Your task to perform on an android device: Open notification settings Image 0: 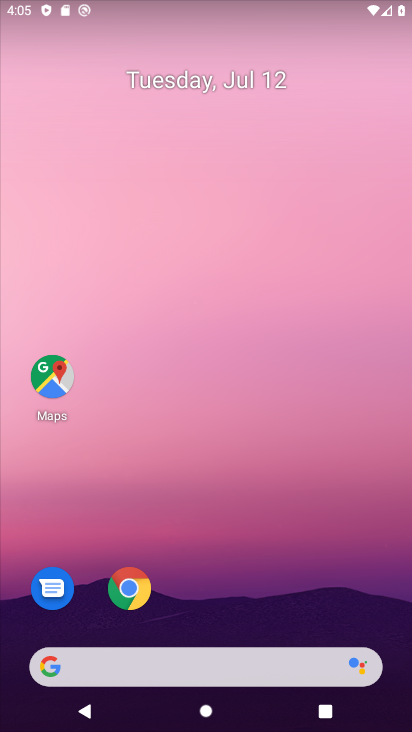
Step 0: click (212, 583)
Your task to perform on an android device: Open notification settings Image 1: 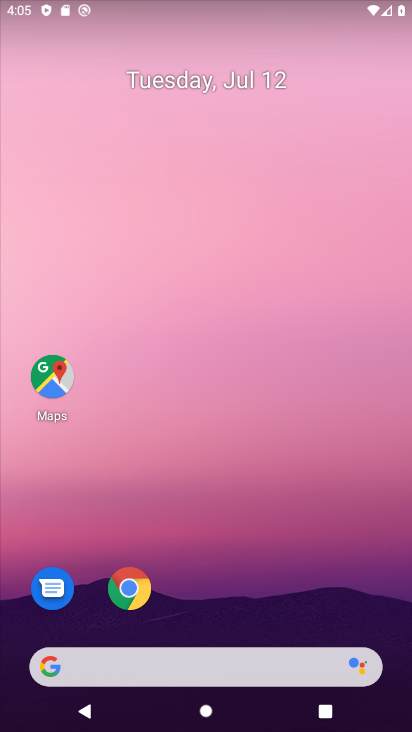
Step 1: drag from (210, 599) to (173, 246)
Your task to perform on an android device: Open notification settings Image 2: 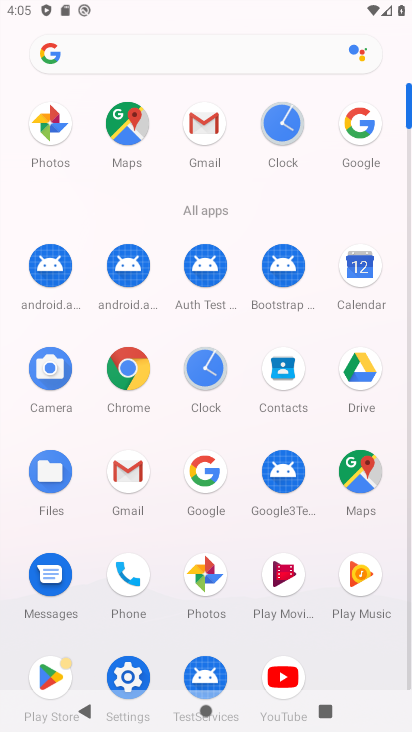
Step 2: click (126, 649)
Your task to perform on an android device: Open notification settings Image 3: 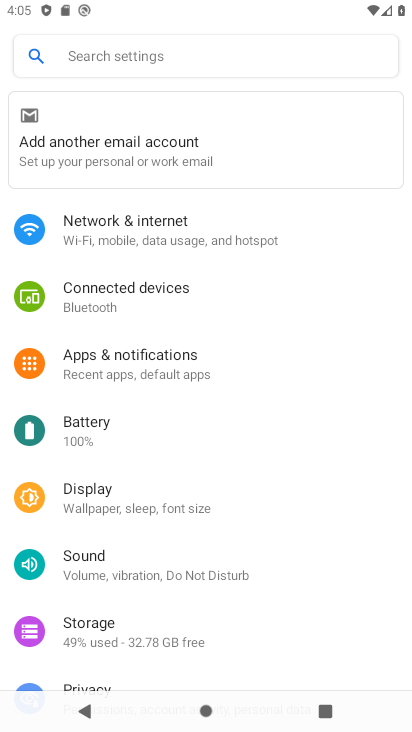
Step 3: click (201, 389)
Your task to perform on an android device: Open notification settings Image 4: 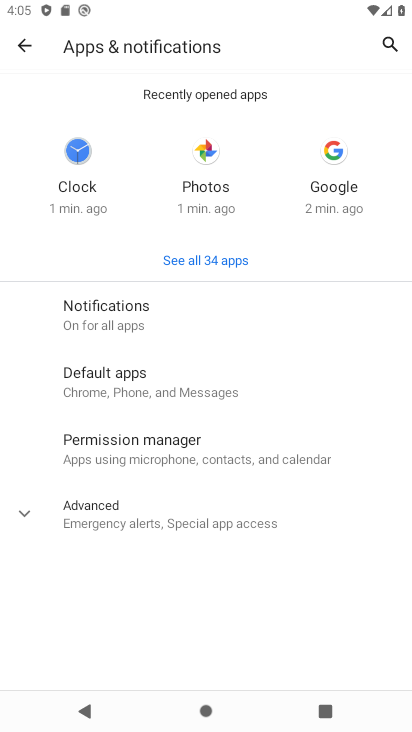
Step 4: click (137, 331)
Your task to perform on an android device: Open notification settings Image 5: 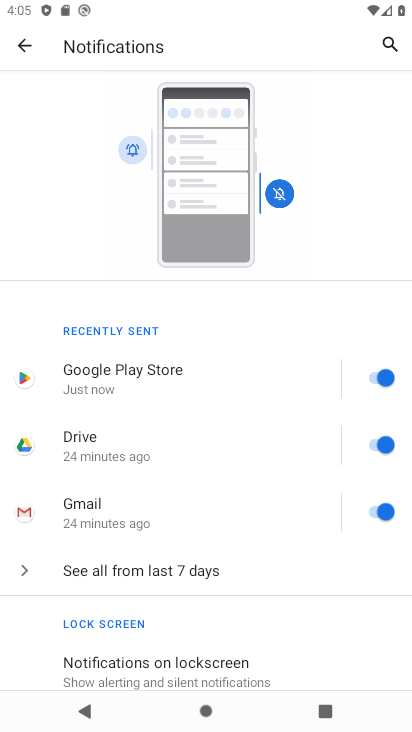
Step 5: task complete